Your task to perform on an android device: Is it going to rain this weekend? Image 0: 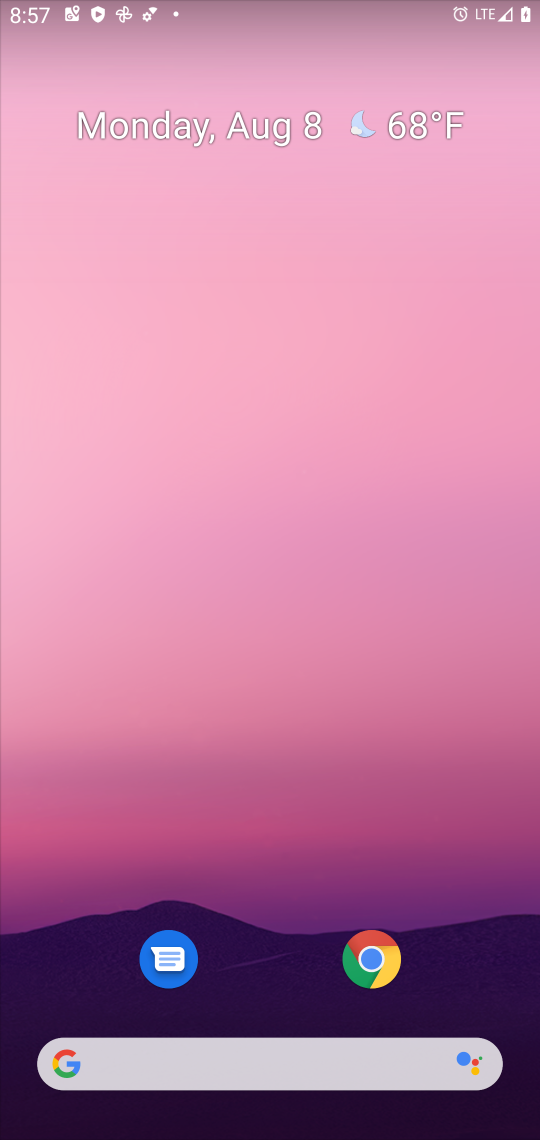
Step 0: drag from (492, 945) to (325, 52)
Your task to perform on an android device: Is it going to rain this weekend? Image 1: 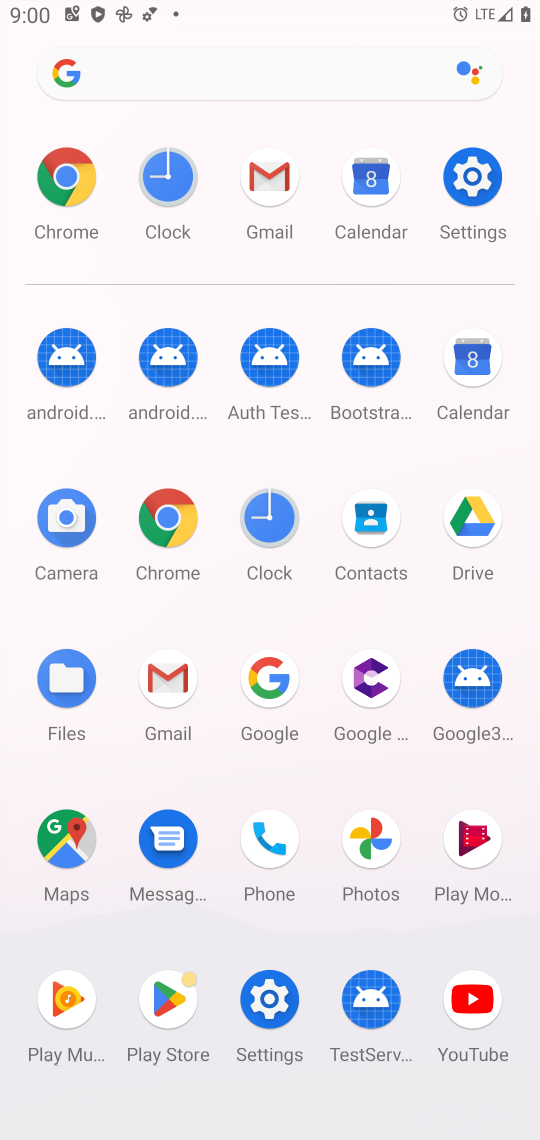
Step 1: click (262, 697)
Your task to perform on an android device: Is it going to rain this weekend? Image 2: 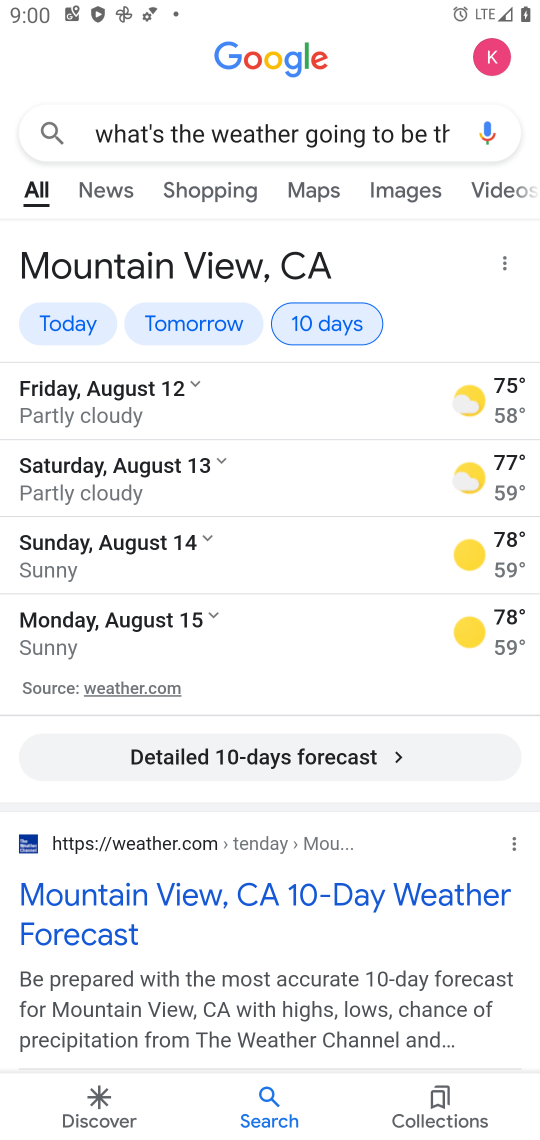
Step 2: press back button
Your task to perform on an android device: Is it going to rain this weekend? Image 3: 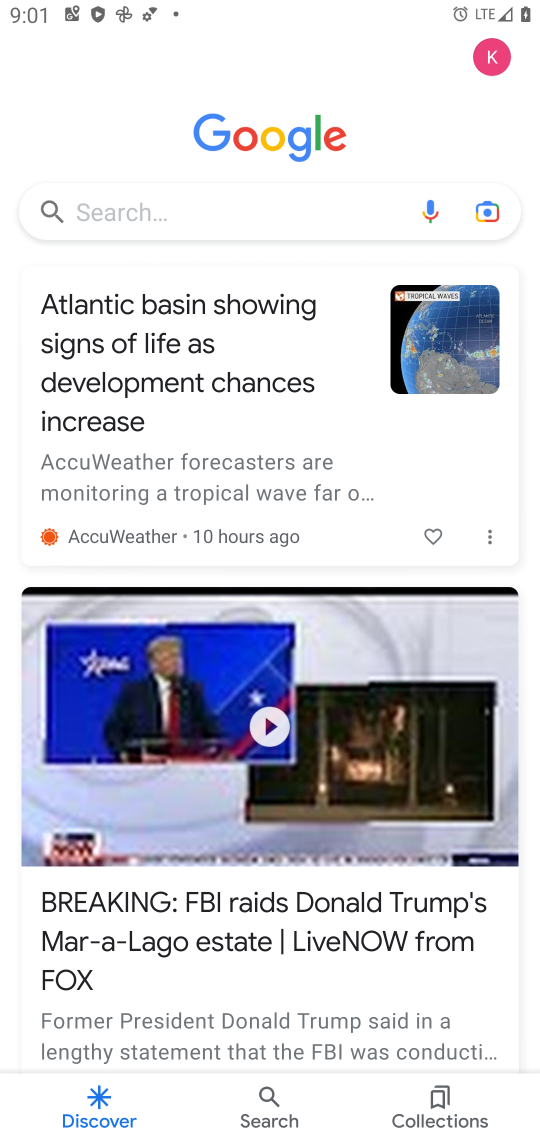
Step 3: click (248, 210)
Your task to perform on an android device: Is it going to rain this weekend? Image 4: 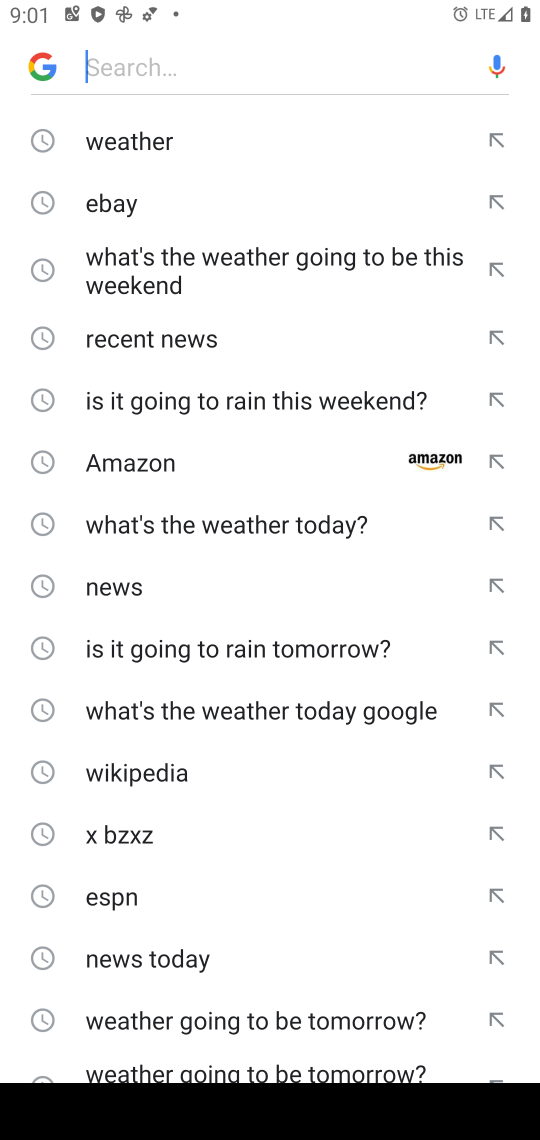
Step 4: click (209, 407)
Your task to perform on an android device: Is it going to rain this weekend? Image 5: 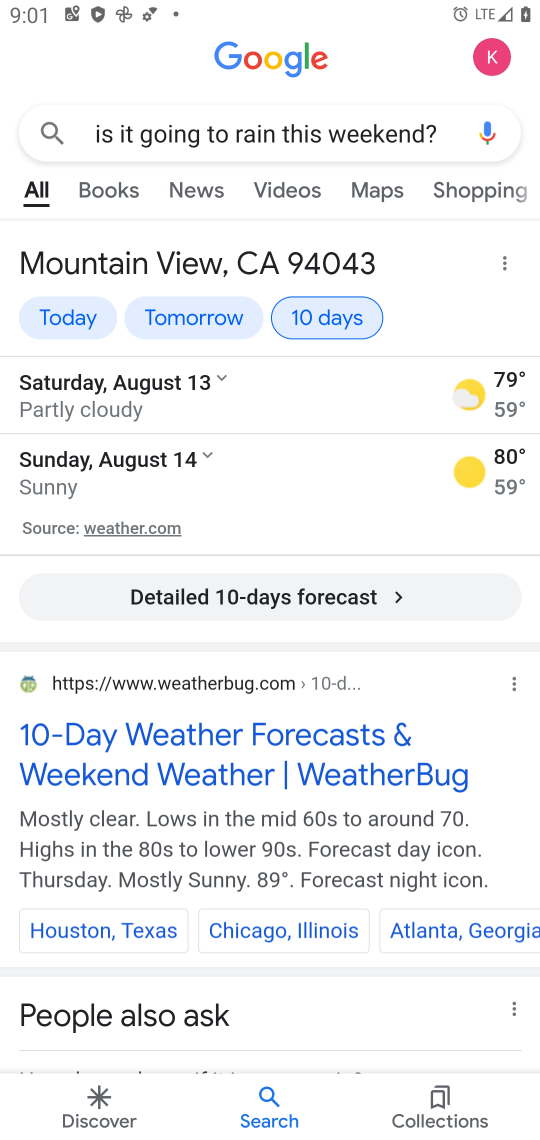
Step 5: task complete